Your task to perform on an android device: open sync settings in chrome Image 0: 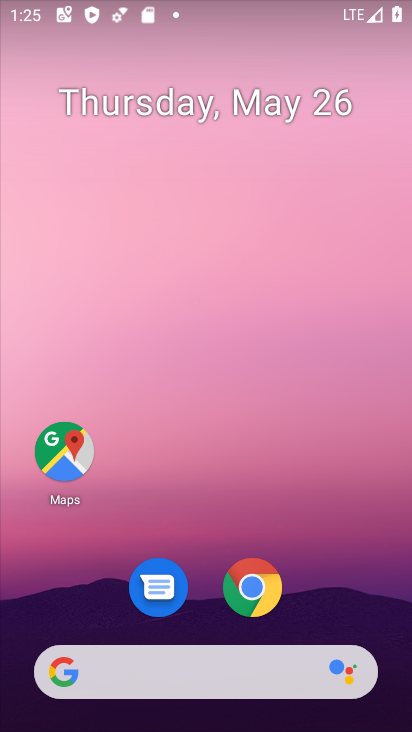
Step 0: drag from (380, 476) to (357, 62)
Your task to perform on an android device: open sync settings in chrome Image 1: 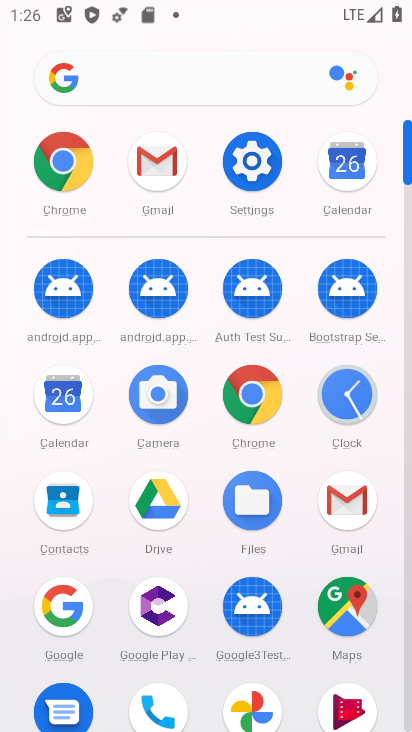
Step 1: click (251, 401)
Your task to perform on an android device: open sync settings in chrome Image 2: 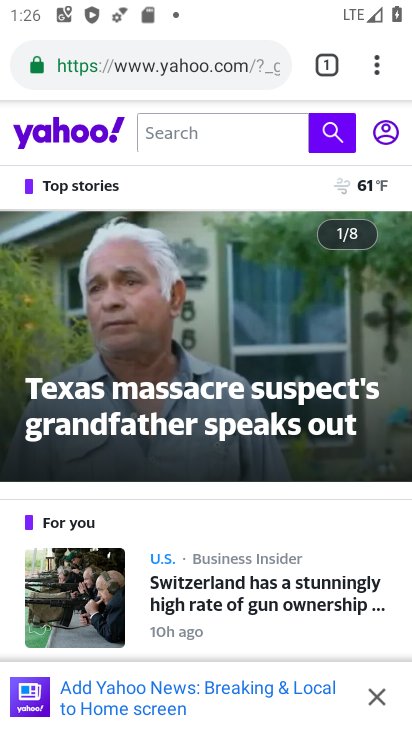
Step 2: click (376, 74)
Your task to perform on an android device: open sync settings in chrome Image 3: 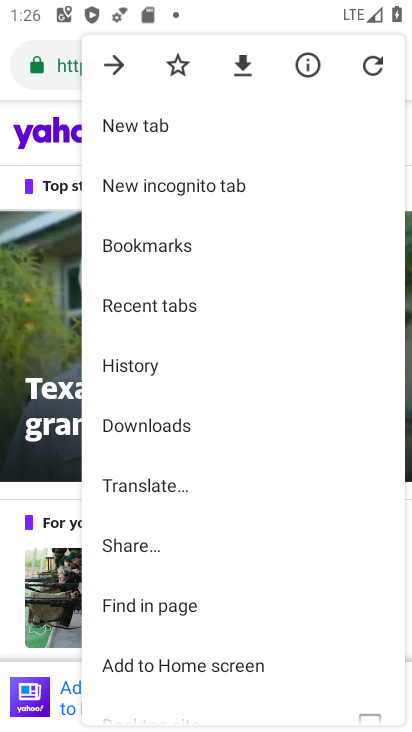
Step 3: drag from (297, 522) to (306, 327)
Your task to perform on an android device: open sync settings in chrome Image 4: 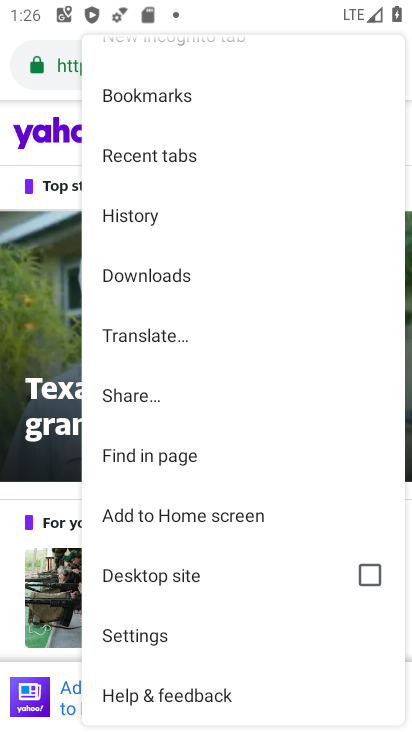
Step 4: drag from (292, 595) to (291, 374)
Your task to perform on an android device: open sync settings in chrome Image 5: 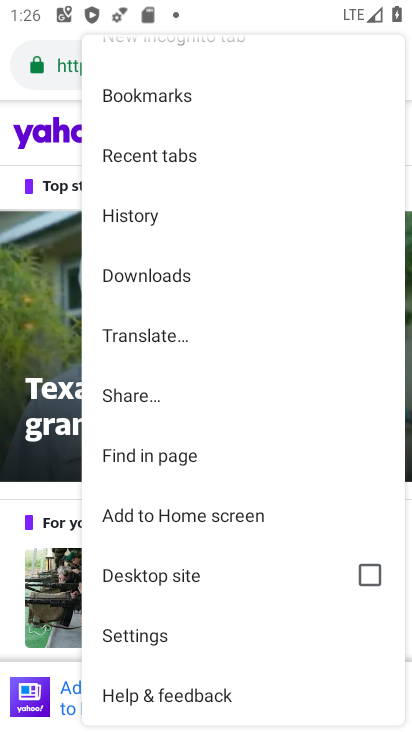
Step 5: click (162, 641)
Your task to perform on an android device: open sync settings in chrome Image 6: 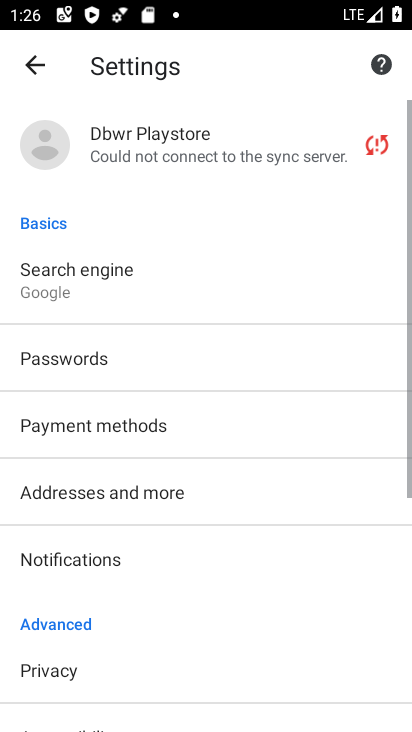
Step 6: drag from (292, 546) to (309, 402)
Your task to perform on an android device: open sync settings in chrome Image 7: 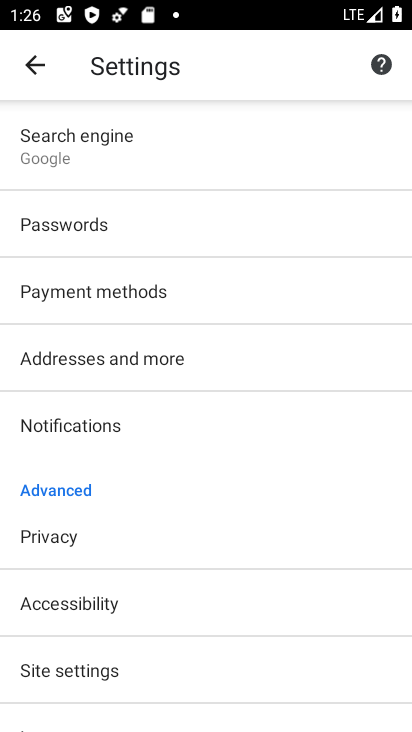
Step 7: drag from (316, 557) to (329, 430)
Your task to perform on an android device: open sync settings in chrome Image 8: 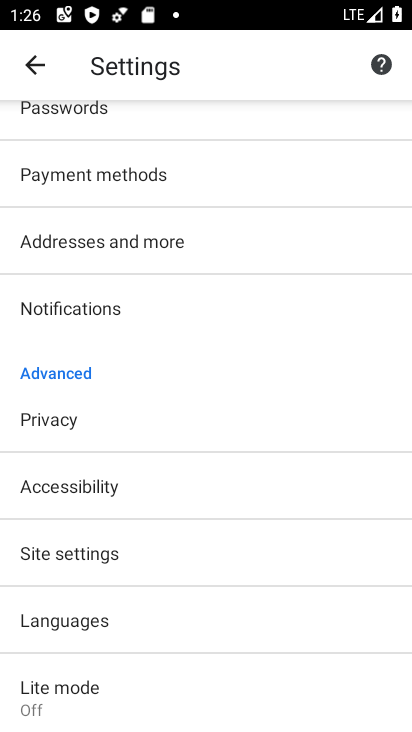
Step 8: drag from (332, 595) to (330, 482)
Your task to perform on an android device: open sync settings in chrome Image 9: 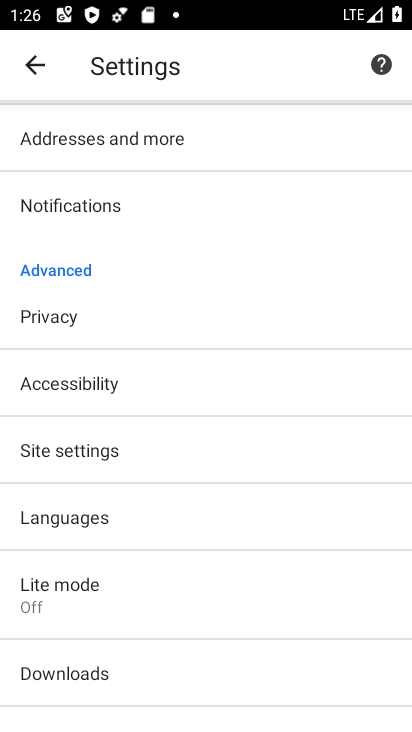
Step 9: drag from (333, 633) to (332, 526)
Your task to perform on an android device: open sync settings in chrome Image 10: 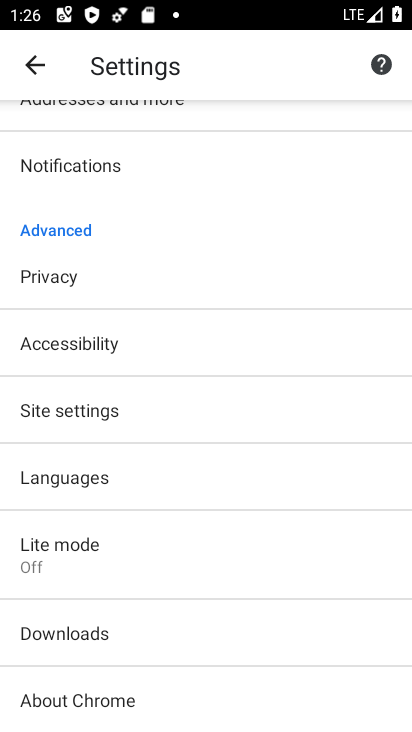
Step 10: drag from (326, 363) to (326, 450)
Your task to perform on an android device: open sync settings in chrome Image 11: 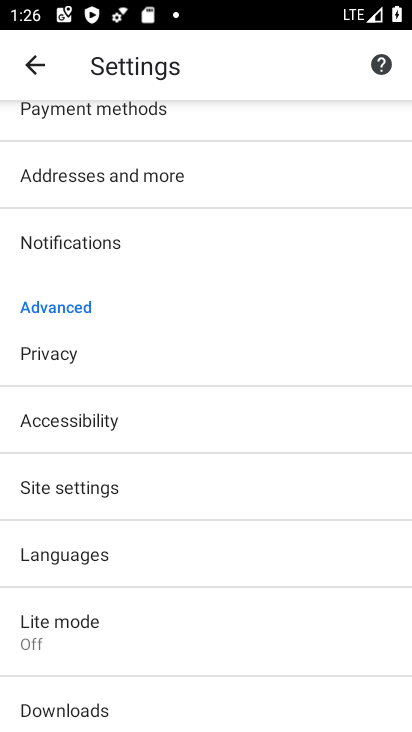
Step 11: drag from (323, 316) to (325, 408)
Your task to perform on an android device: open sync settings in chrome Image 12: 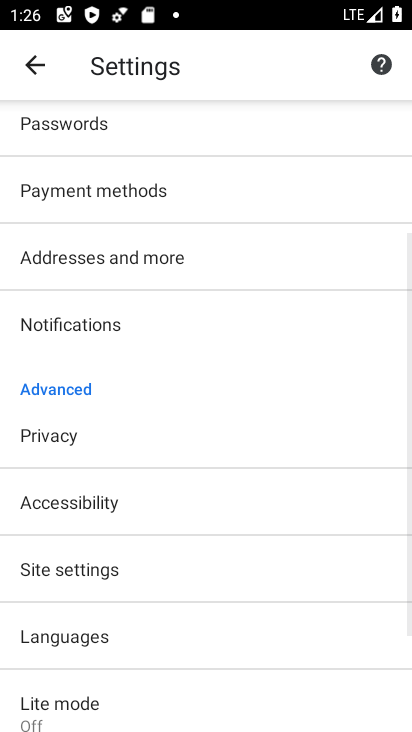
Step 12: drag from (313, 234) to (320, 370)
Your task to perform on an android device: open sync settings in chrome Image 13: 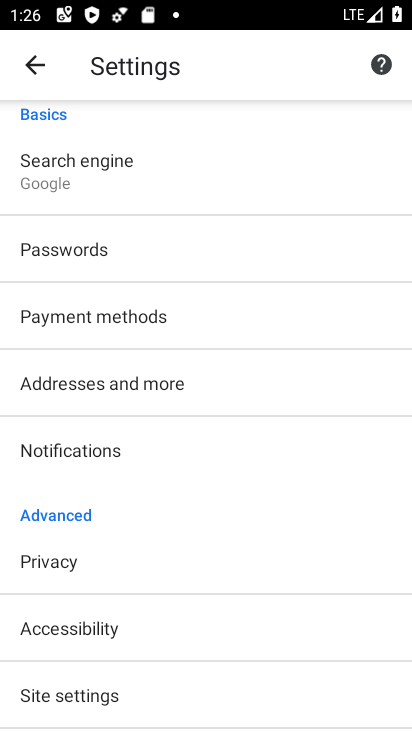
Step 13: drag from (308, 174) to (308, 319)
Your task to perform on an android device: open sync settings in chrome Image 14: 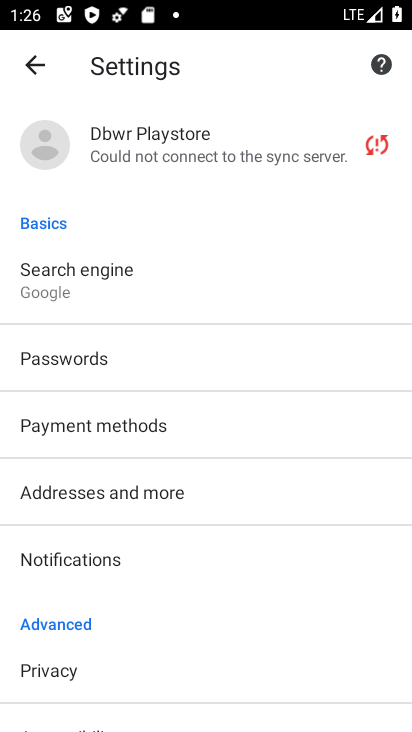
Step 14: drag from (312, 455) to (315, 266)
Your task to perform on an android device: open sync settings in chrome Image 15: 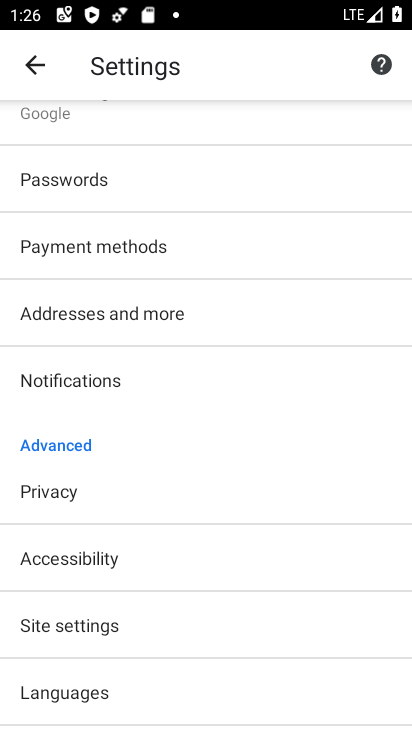
Step 15: drag from (338, 482) to (313, 340)
Your task to perform on an android device: open sync settings in chrome Image 16: 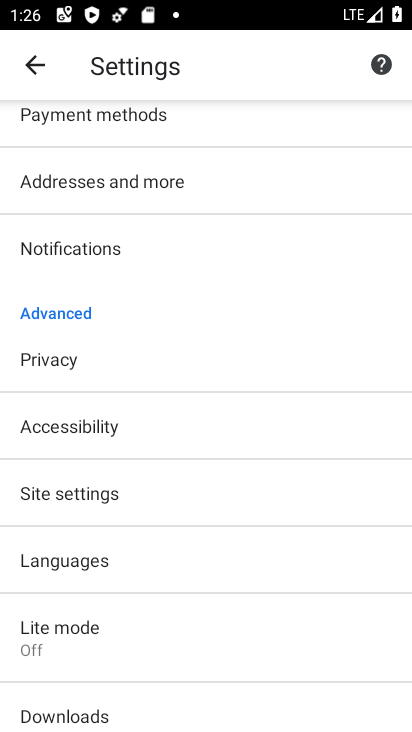
Step 16: drag from (306, 558) to (305, 430)
Your task to perform on an android device: open sync settings in chrome Image 17: 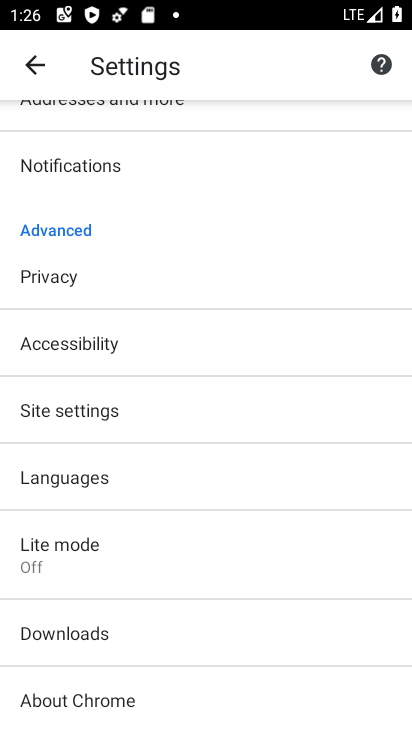
Step 17: click (264, 426)
Your task to perform on an android device: open sync settings in chrome Image 18: 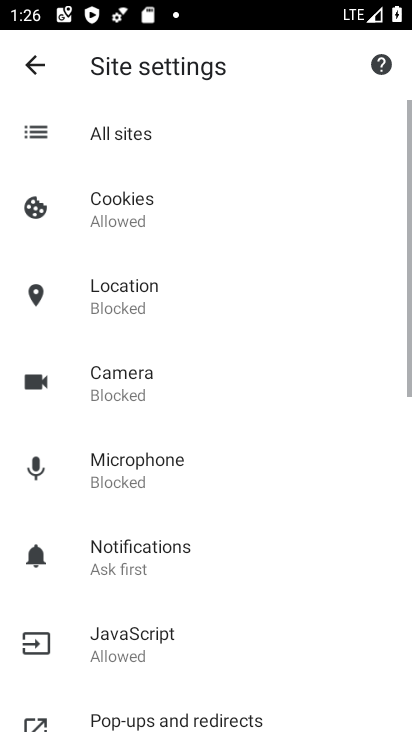
Step 18: drag from (289, 527) to (304, 418)
Your task to perform on an android device: open sync settings in chrome Image 19: 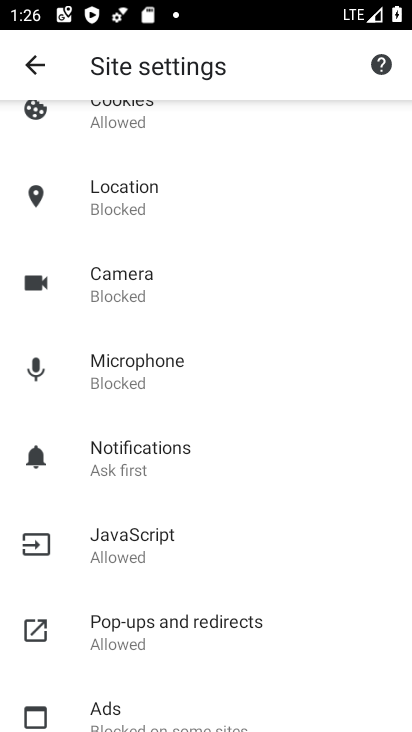
Step 19: drag from (318, 549) to (333, 404)
Your task to perform on an android device: open sync settings in chrome Image 20: 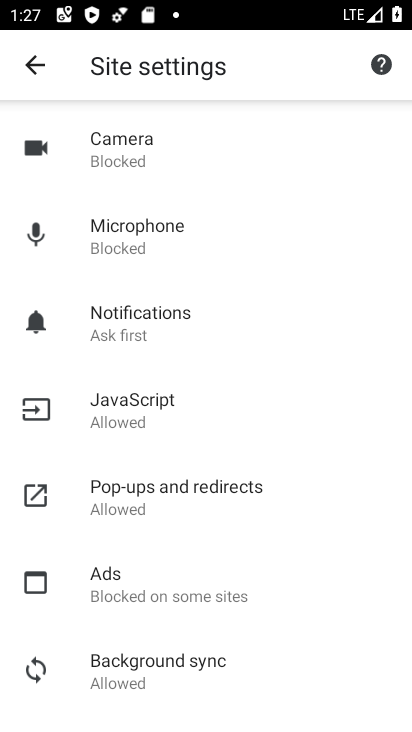
Step 20: drag from (349, 604) to (349, 461)
Your task to perform on an android device: open sync settings in chrome Image 21: 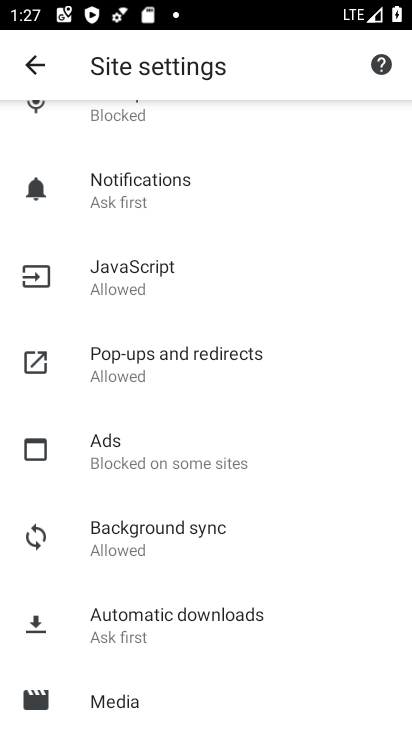
Step 21: drag from (334, 575) to (334, 439)
Your task to perform on an android device: open sync settings in chrome Image 22: 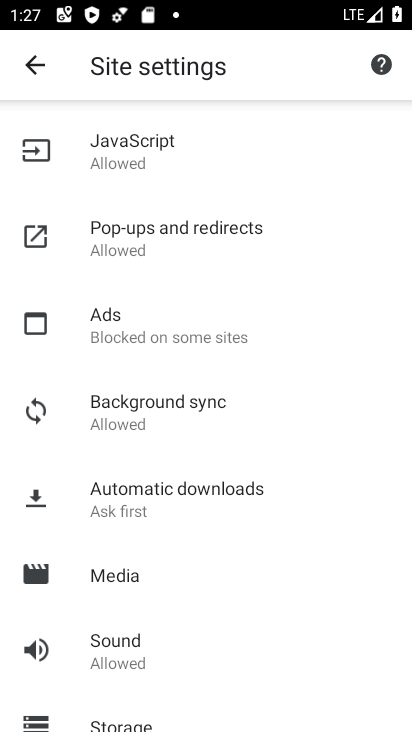
Step 22: drag from (347, 593) to (357, 426)
Your task to perform on an android device: open sync settings in chrome Image 23: 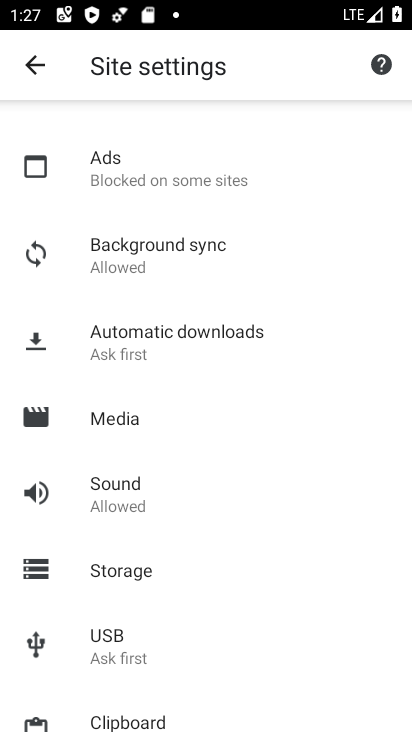
Step 23: click (217, 257)
Your task to perform on an android device: open sync settings in chrome Image 24: 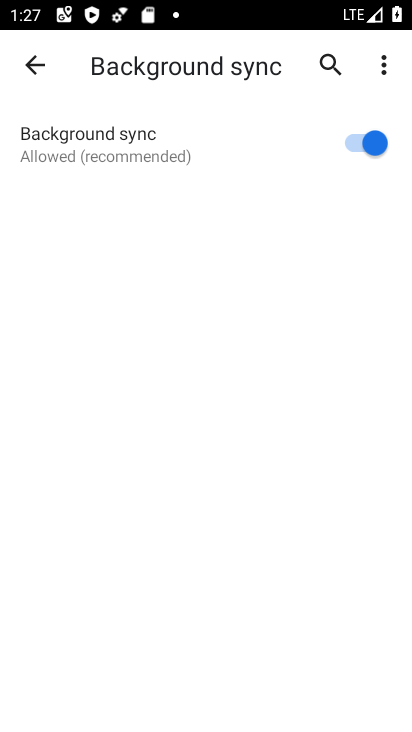
Step 24: task complete